Your task to perform on an android device: change your default location settings in chrome Image 0: 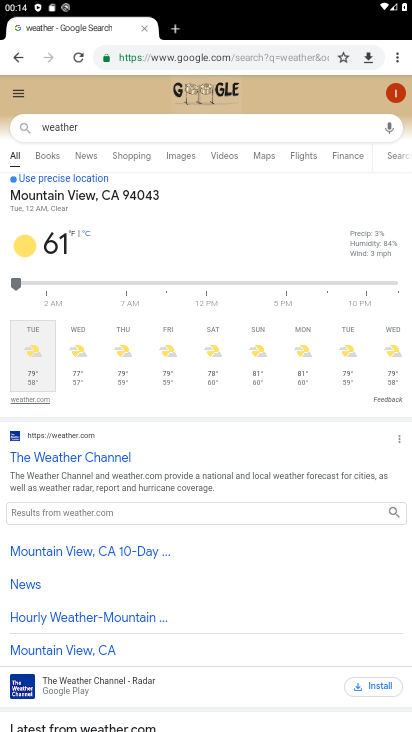
Step 0: press home button
Your task to perform on an android device: change your default location settings in chrome Image 1: 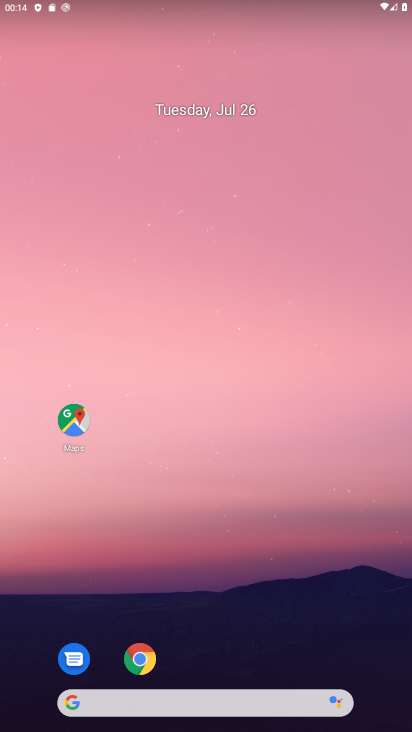
Step 1: drag from (312, 632) to (175, 6)
Your task to perform on an android device: change your default location settings in chrome Image 2: 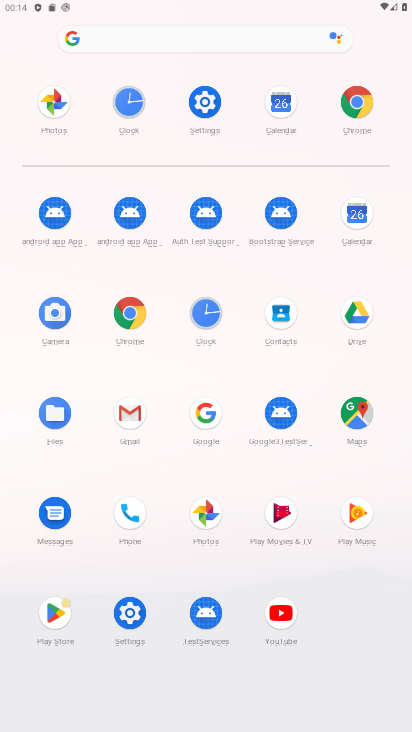
Step 2: click (357, 102)
Your task to perform on an android device: change your default location settings in chrome Image 3: 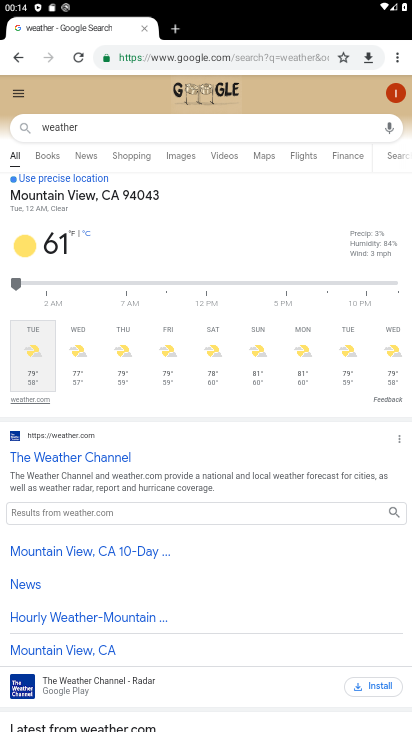
Step 3: drag from (399, 52) to (284, 354)
Your task to perform on an android device: change your default location settings in chrome Image 4: 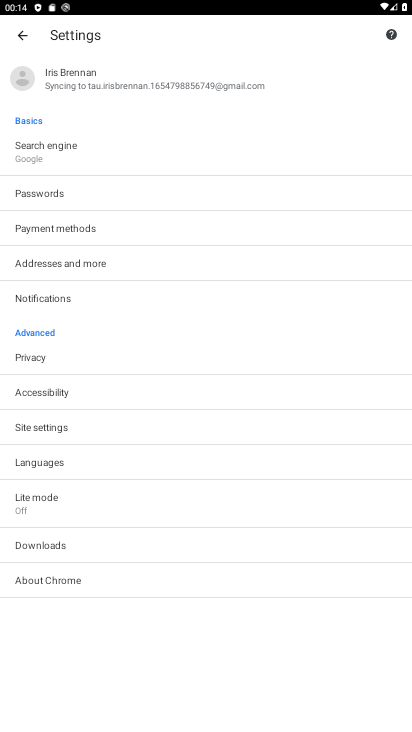
Step 4: click (50, 430)
Your task to perform on an android device: change your default location settings in chrome Image 5: 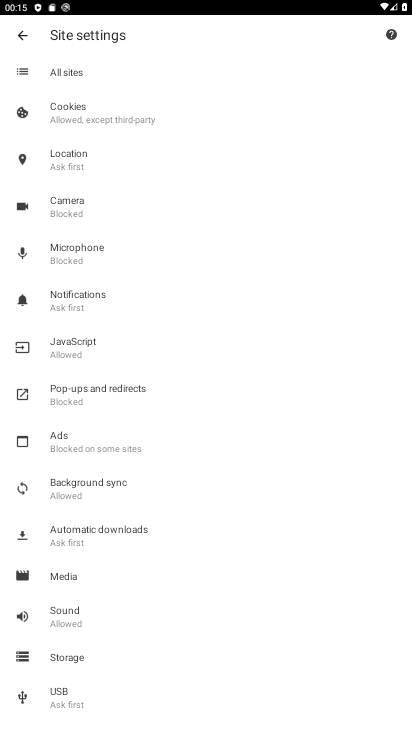
Step 5: click (61, 148)
Your task to perform on an android device: change your default location settings in chrome Image 6: 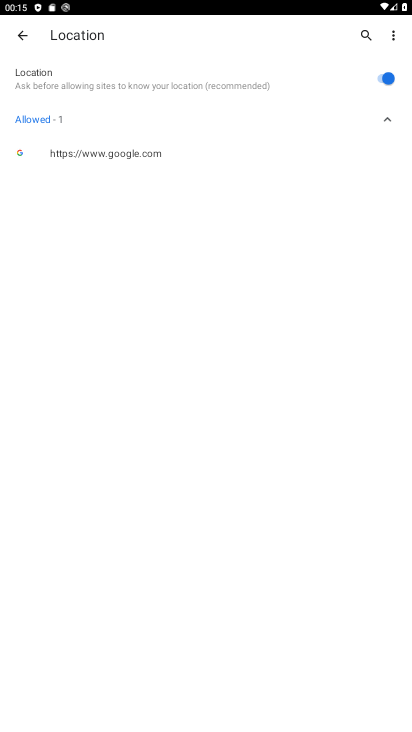
Step 6: click (391, 81)
Your task to perform on an android device: change your default location settings in chrome Image 7: 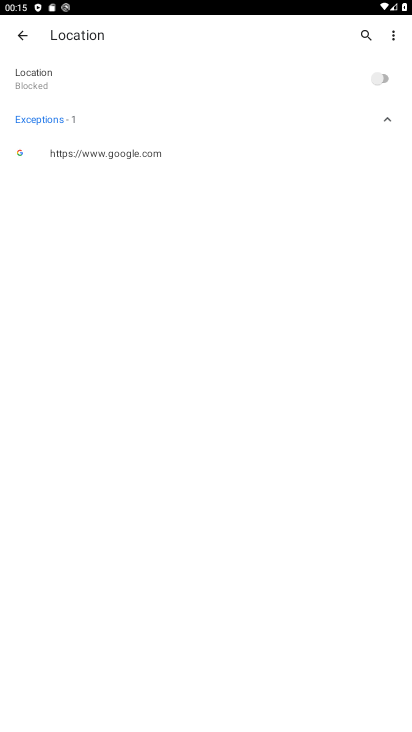
Step 7: task complete